Your task to perform on an android device: turn off location history Image 0: 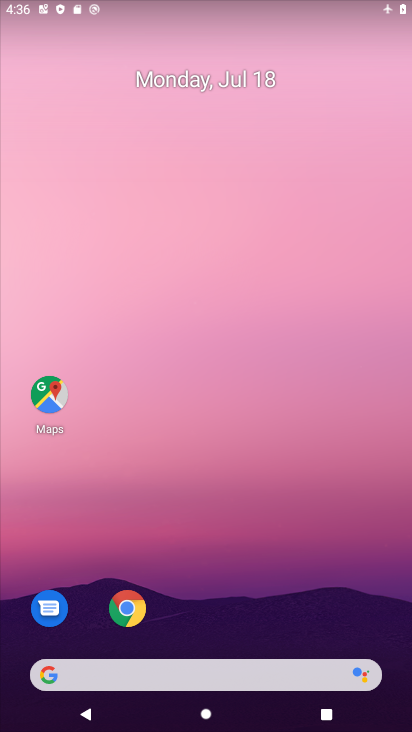
Step 0: drag from (315, 603) to (274, 15)
Your task to perform on an android device: turn off location history Image 1: 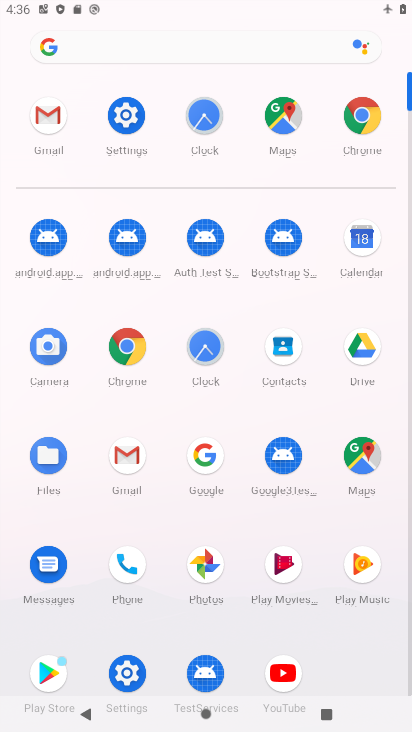
Step 1: click (136, 114)
Your task to perform on an android device: turn off location history Image 2: 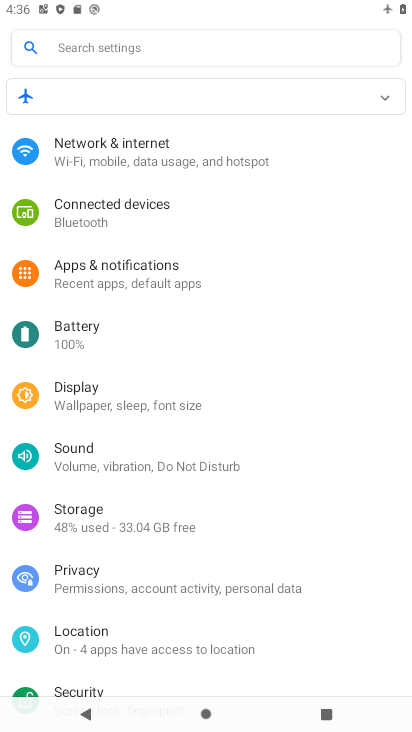
Step 2: click (119, 634)
Your task to perform on an android device: turn off location history Image 3: 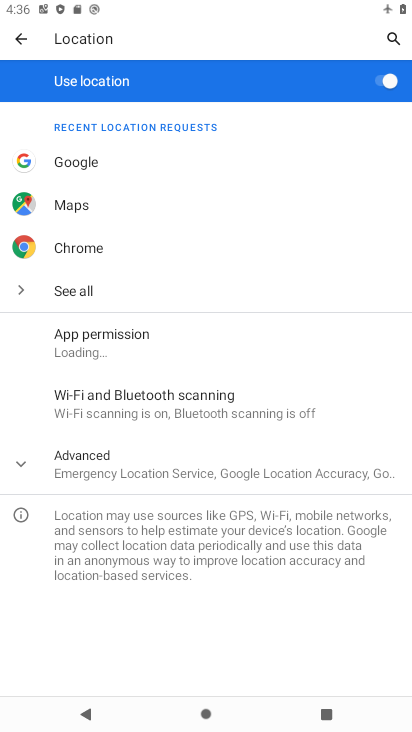
Step 3: click (120, 461)
Your task to perform on an android device: turn off location history Image 4: 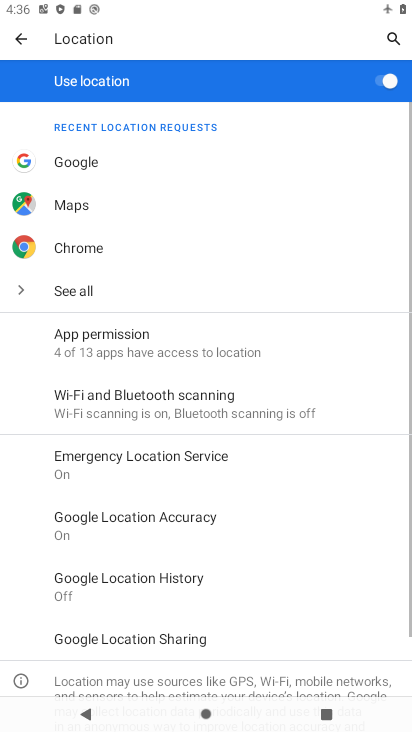
Step 4: click (172, 579)
Your task to perform on an android device: turn off location history Image 5: 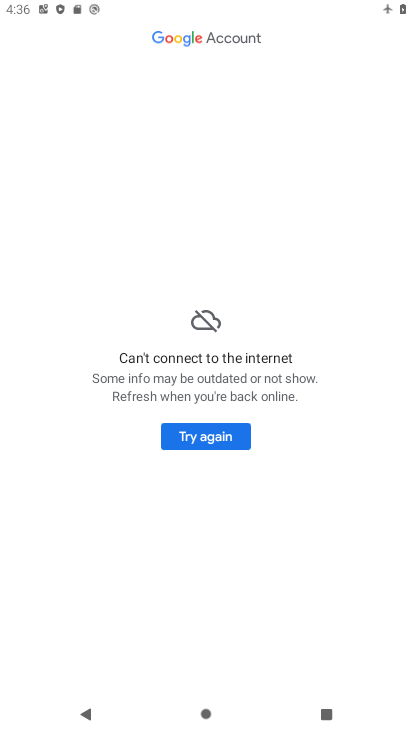
Step 5: task complete